Your task to perform on an android device: open app "Google Duo" (install if not already installed) Image 0: 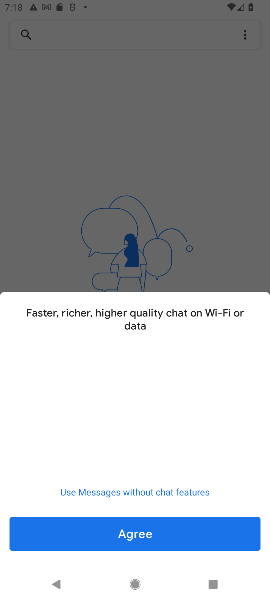
Step 0: press home button
Your task to perform on an android device: open app "Google Duo" (install if not already installed) Image 1: 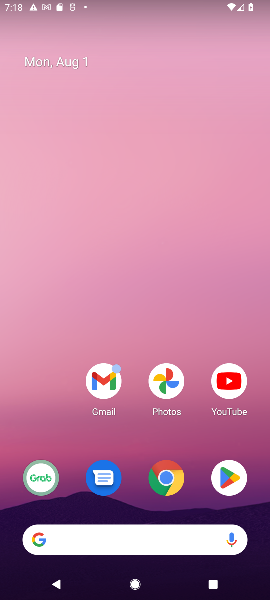
Step 1: click (241, 473)
Your task to perform on an android device: open app "Google Duo" (install if not already installed) Image 2: 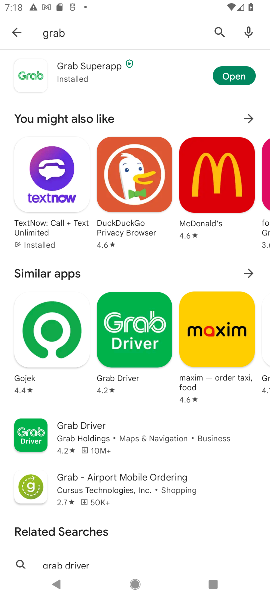
Step 2: click (210, 32)
Your task to perform on an android device: open app "Google Duo" (install if not already installed) Image 3: 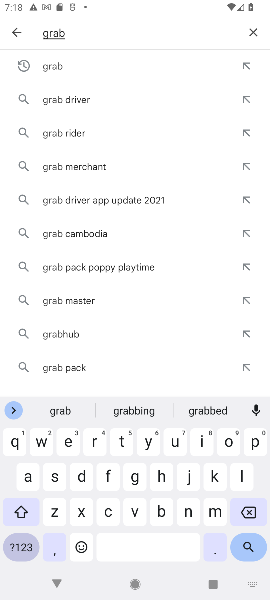
Step 3: click (248, 31)
Your task to perform on an android device: open app "Google Duo" (install if not already installed) Image 4: 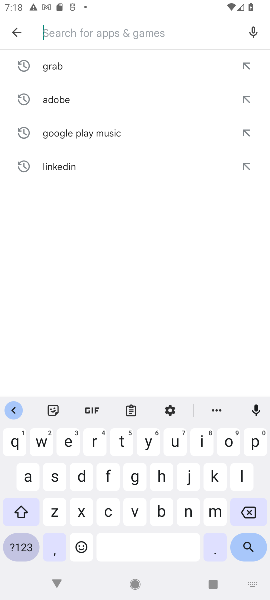
Step 4: click (77, 476)
Your task to perform on an android device: open app "Google Duo" (install if not already installed) Image 5: 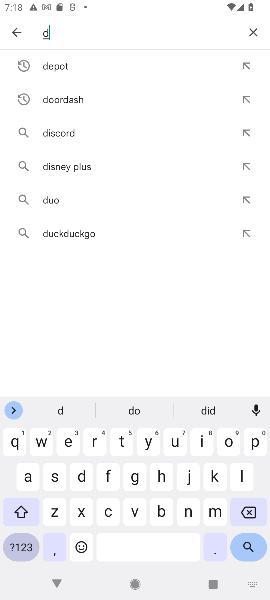
Step 5: click (170, 442)
Your task to perform on an android device: open app "Google Duo" (install if not already installed) Image 6: 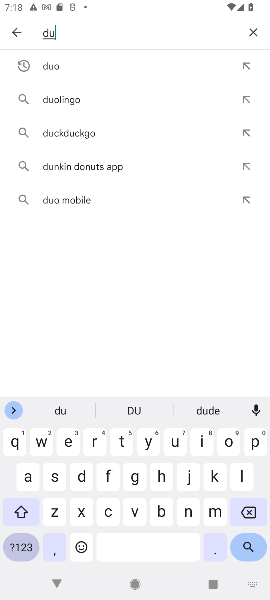
Step 6: click (51, 63)
Your task to perform on an android device: open app "Google Duo" (install if not already installed) Image 7: 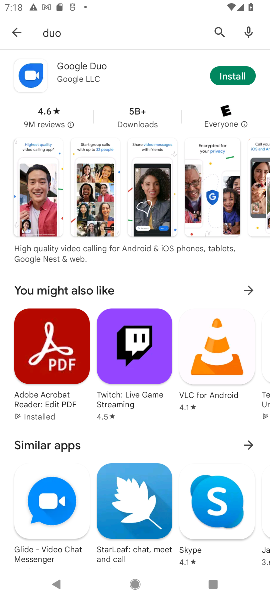
Step 7: click (219, 74)
Your task to perform on an android device: open app "Google Duo" (install if not already installed) Image 8: 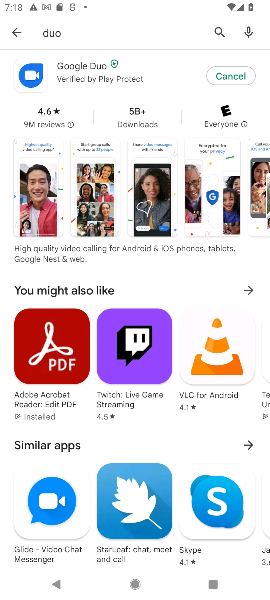
Step 8: click (219, 74)
Your task to perform on an android device: open app "Google Duo" (install if not already installed) Image 9: 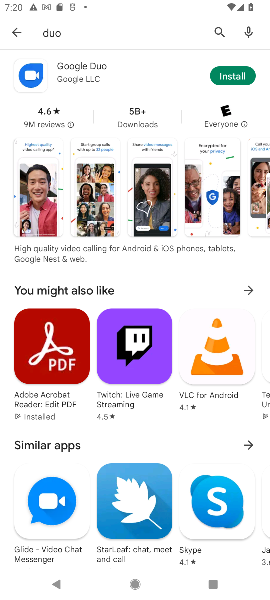
Step 9: click (233, 79)
Your task to perform on an android device: open app "Google Duo" (install if not already installed) Image 10: 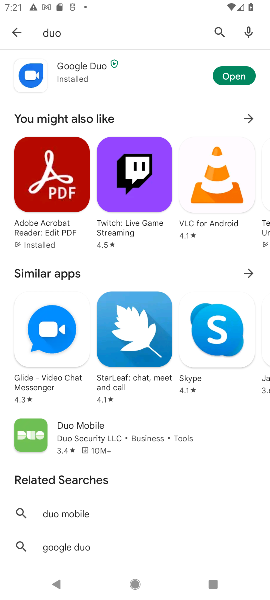
Step 10: click (233, 79)
Your task to perform on an android device: open app "Google Duo" (install if not already installed) Image 11: 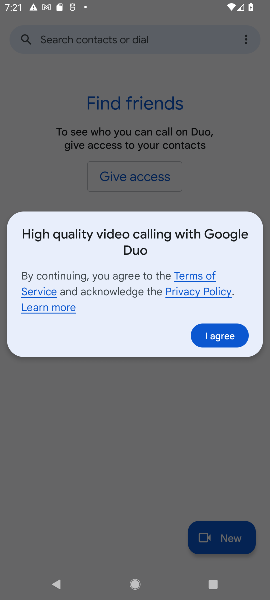
Step 11: task complete